Your task to perform on an android device: Go to notification settings Image 0: 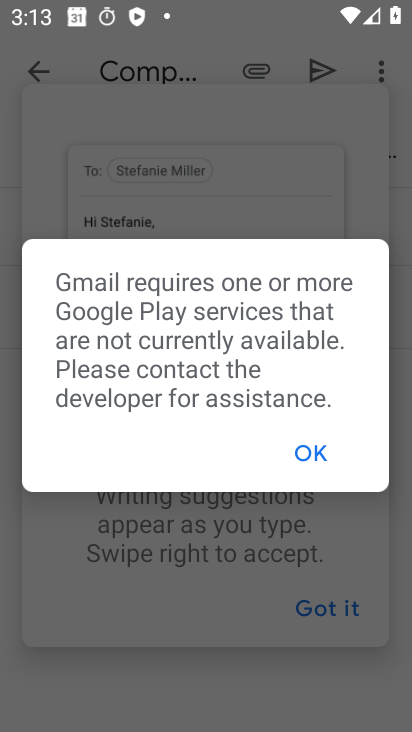
Step 0: click (317, 455)
Your task to perform on an android device: Go to notification settings Image 1: 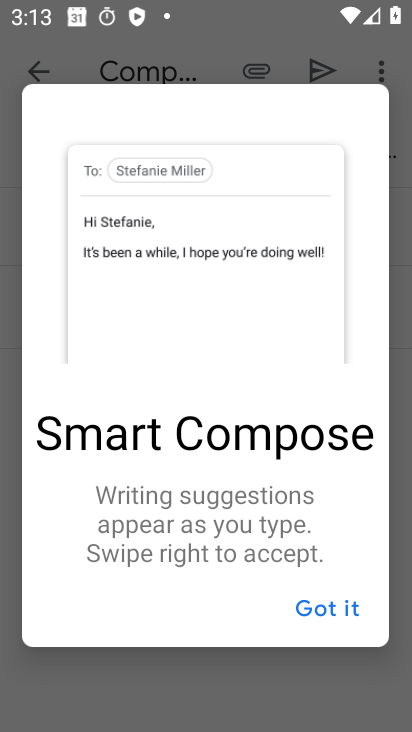
Step 1: click (31, 73)
Your task to perform on an android device: Go to notification settings Image 2: 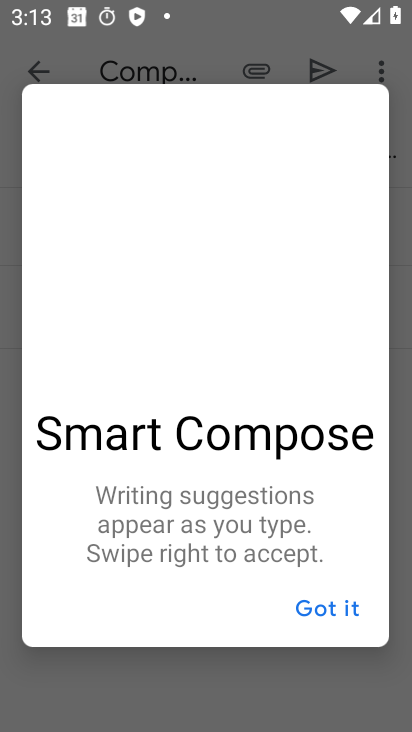
Step 2: click (322, 596)
Your task to perform on an android device: Go to notification settings Image 3: 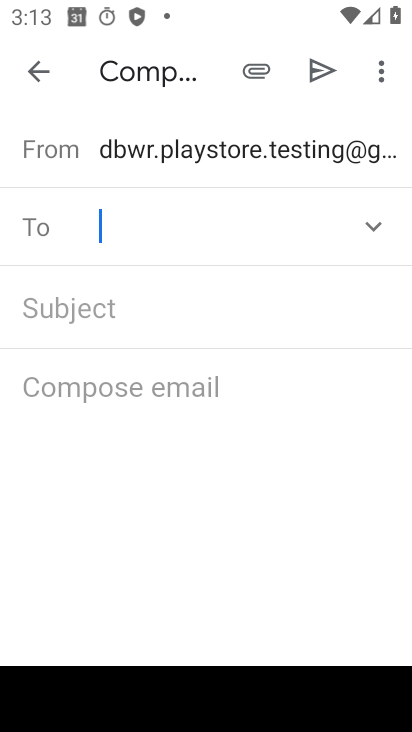
Step 3: press home button
Your task to perform on an android device: Go to notification settings Image 4: 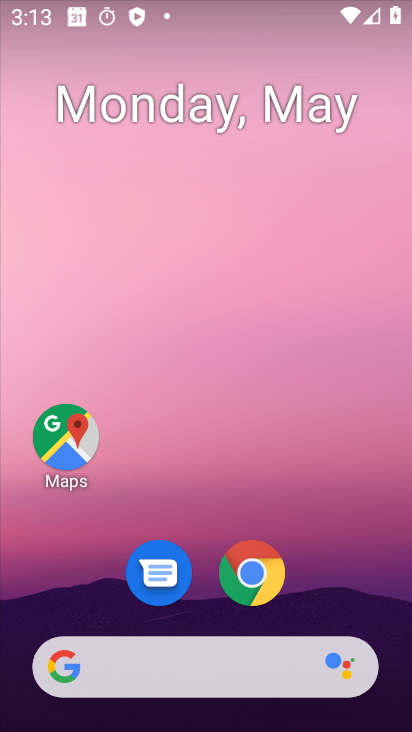
Step 4: drag from (247, 647) to (177, 223)
Your task to perform on an android device: Go to notification settings Image 5: 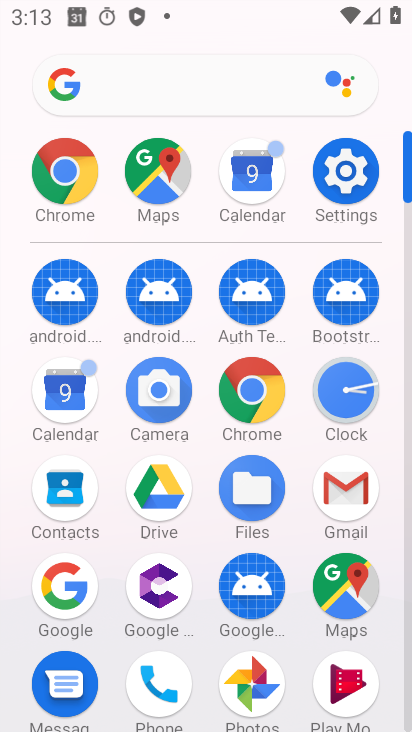
Step 5: click (353, 173)
Your task to perform on an android device: Go to notification settings Image 6: 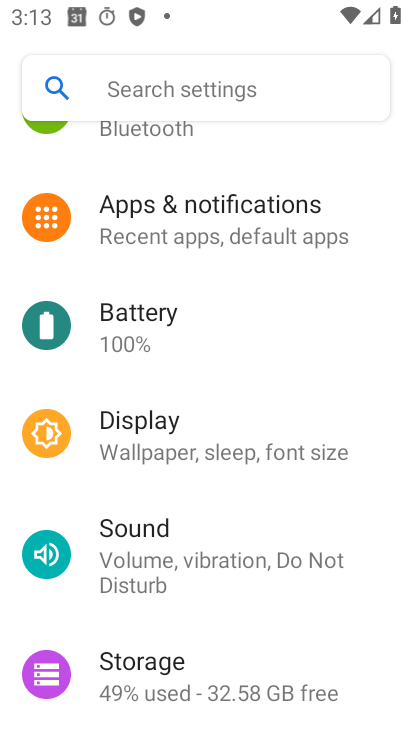
Step 6: click (193, 208)
Your task to perform on an android device: Go to notification settings Image 7: 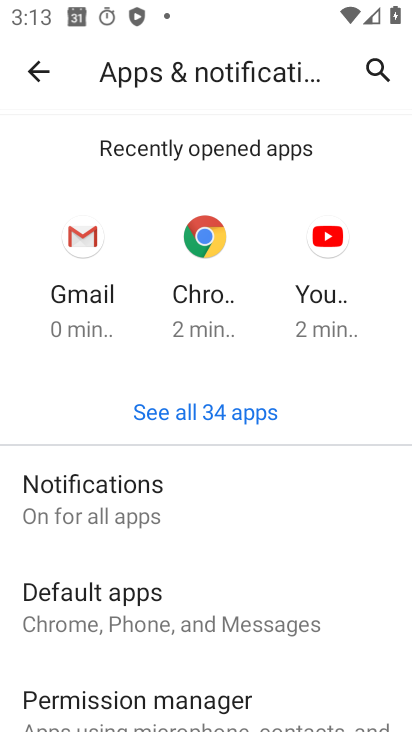
Step 7: click (95, 500)
Your task to perform on an android device: Go to notification settings Image 8: 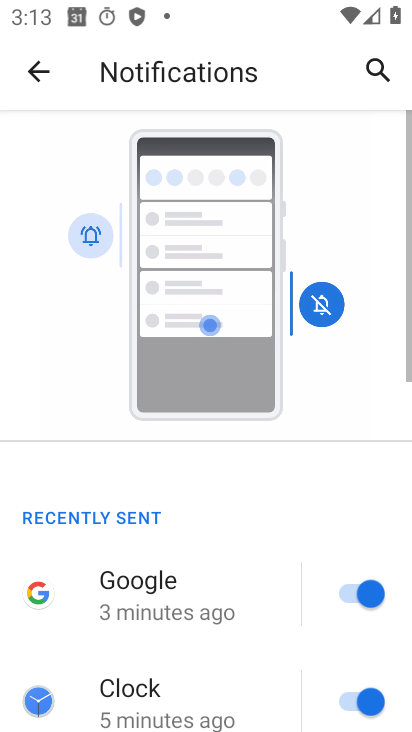
Step 8: task complete